Your task to perform on an android device: turn off location Image 0: 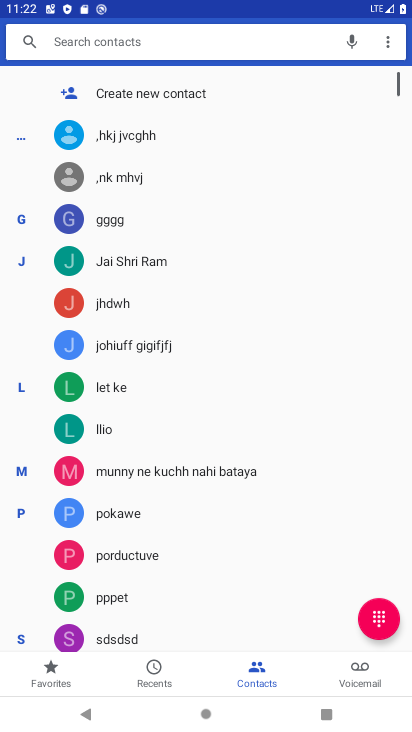
Step 0: press home button
Your task to perform on an android device: turn off location Image 1: 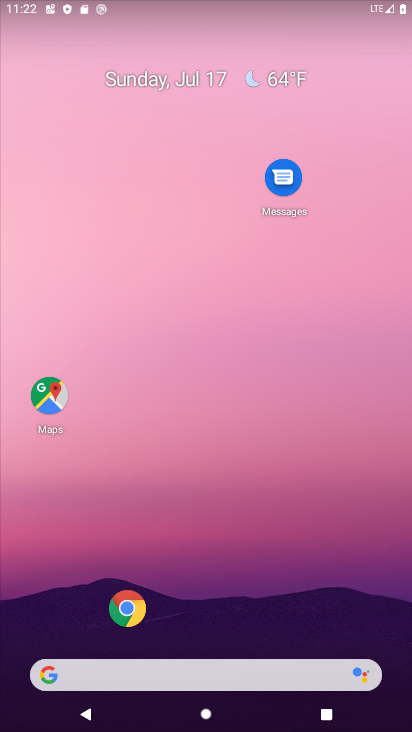
Step 1: drag from (69, 517) to (157, 278)
Your task to perform on an android device: turn off location Image 2: 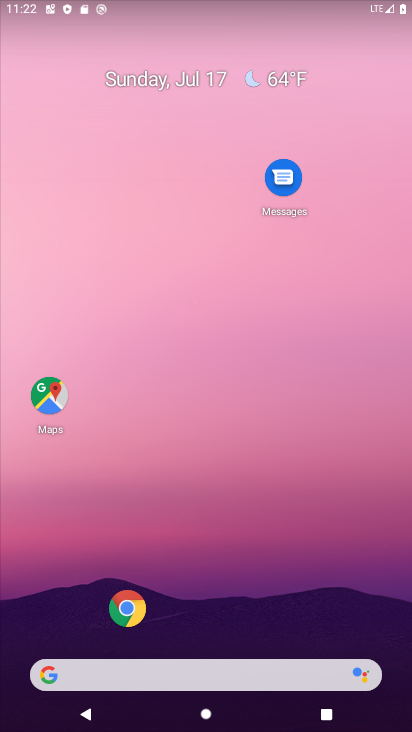
Step 2: drag from (112, 563) to (282, 723)
Your task to perform on an android device: turn off location Image 3: 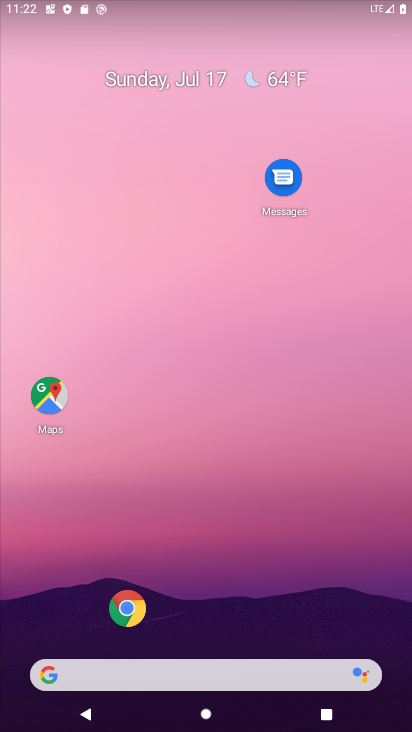
Step 3: drag from (38, 701) to (220, 13)
Your task to perform on an android device: turn off location Image 4: 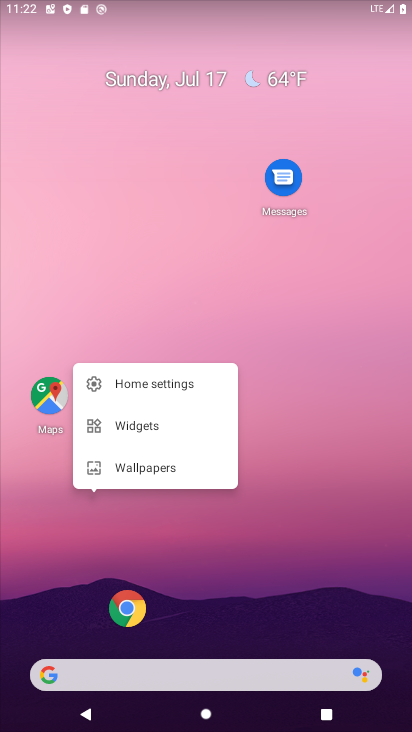
Step 4: drag from (11, 706) to (192, 157)
Your task to perform on an android device: turn off location Image 5: 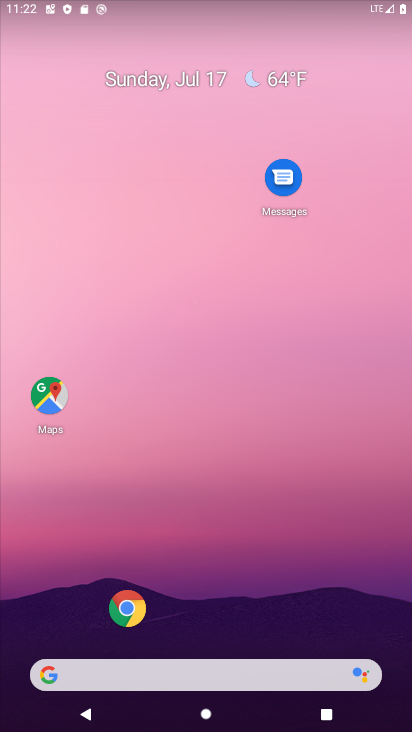
Step 5: drag from (1, 689) to (123, 274)
Your task to perform on an android device: turn off location Image 6: 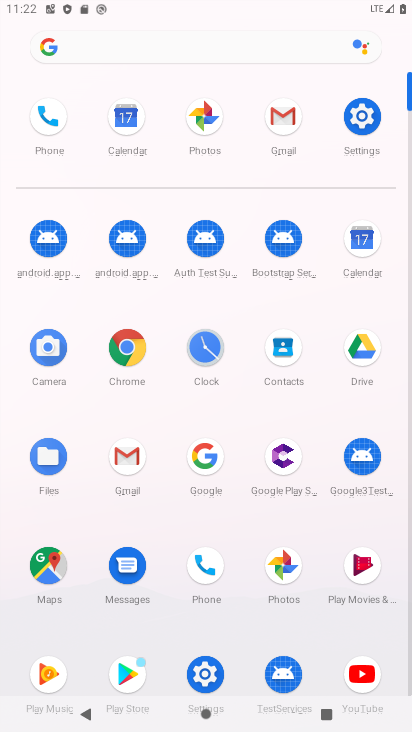
Step 6: click (194, 682)
Your task to perform on an android device: turn off location Image 7: 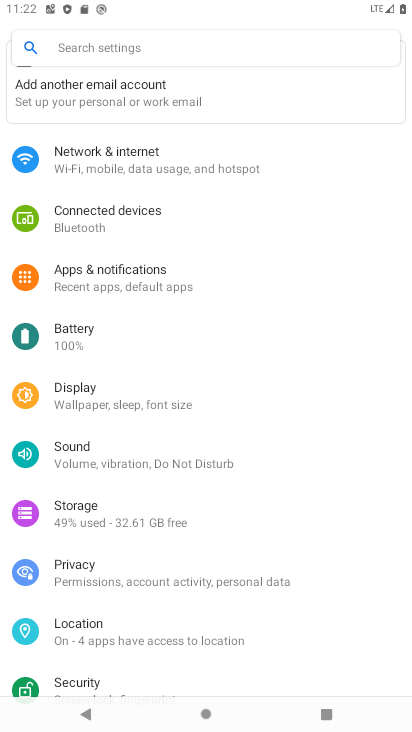
Step 7: click (84, 627)
Your task to perform on an android device: turn off location Image 8: 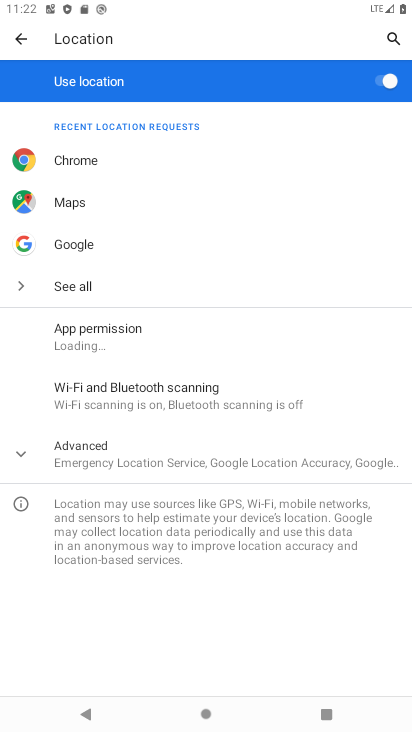
Step 8: click (89, 429)
Your task to perform on an android device: turn off location Image 9: 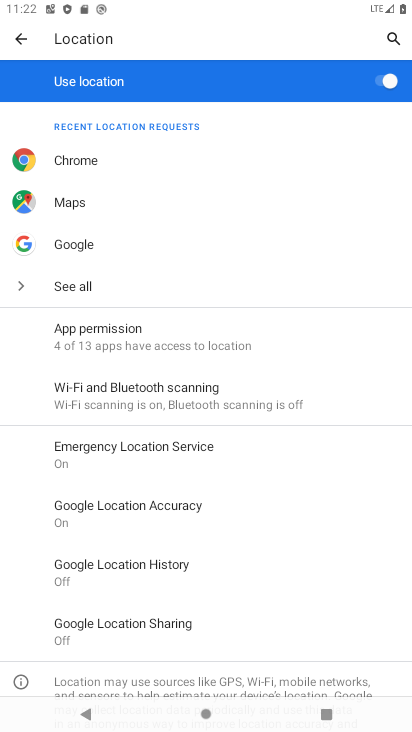
Step 9: task complete